Your task to perform on an android device: toggle show notifications on the lock screen Image 0: 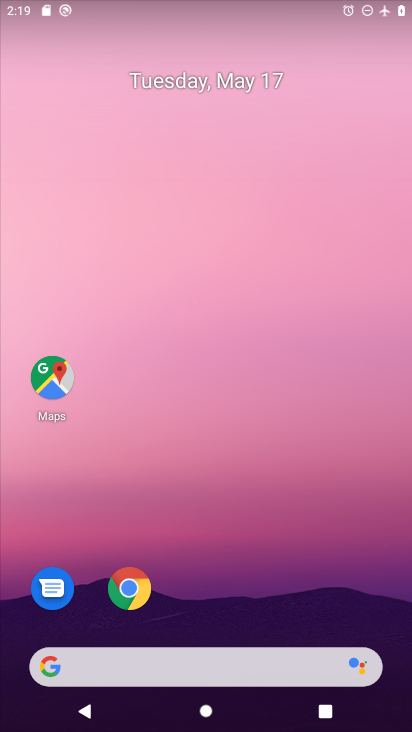
Step 0: drag from (227, 553) to (154, 13)
Your task to perform on an android device: toggle show notifications on the lock screen Image 1: 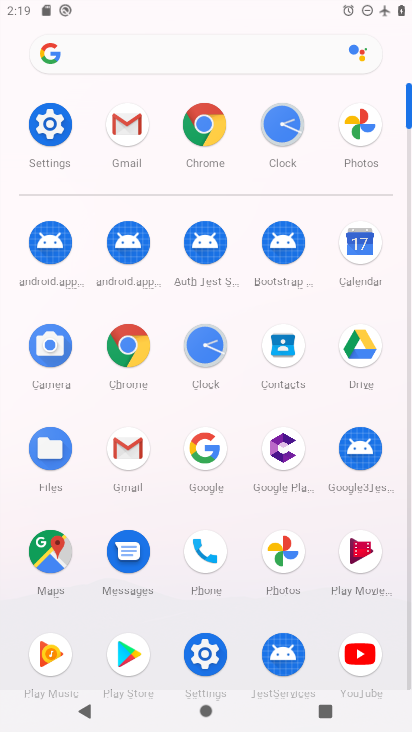
Step 1: click (59, 125)
Your task to perform on an android device: toggle show notifications on the lock screen Image 2: 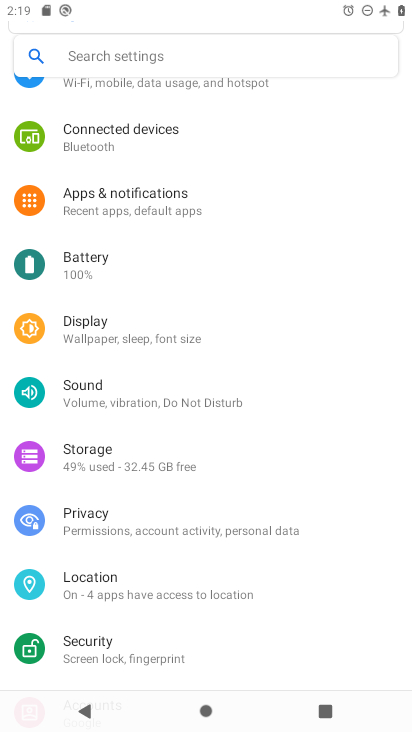
Step 2: click (69, 200)
Your task to perform on an android device: toggle show notifications on the lock screen Image 3: 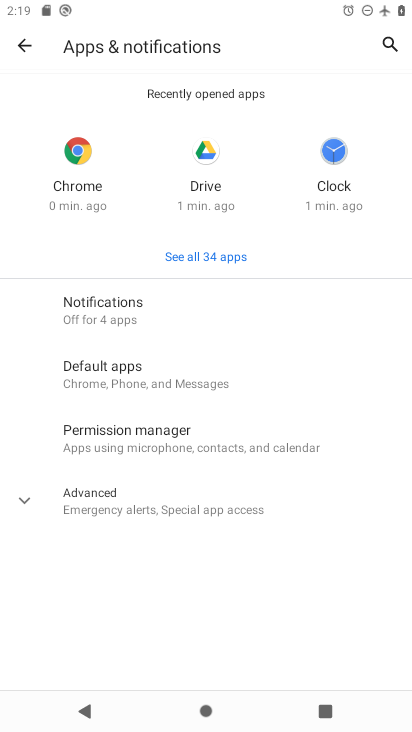
Step 3: click (132, 316)
Your task to perform on an android device: toggle show notifications on the lock screen Image 4: 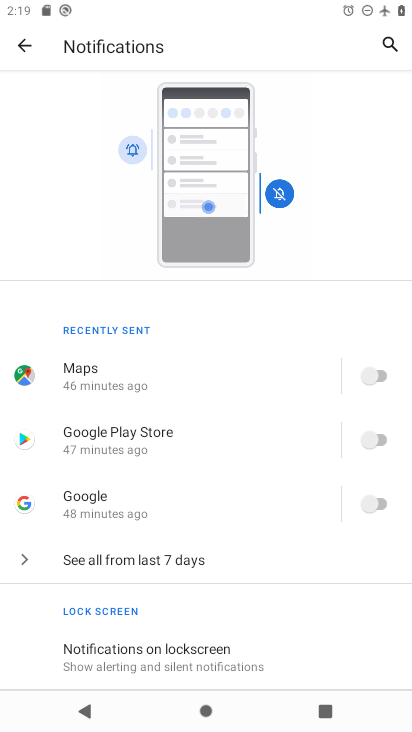
Step 4: drag from (166, 676) to (191, 527)
Your task to perform on an android device: toggle show notifications on the lock screen Image 5: 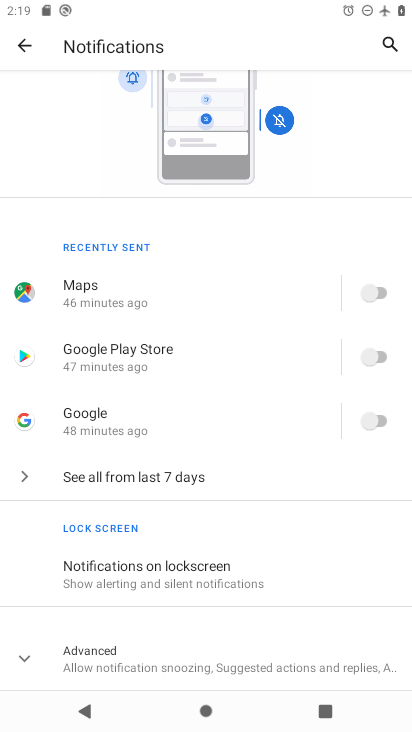
Step 5: drag from (193, 525) to (209, 294)
Your task to perform on an android device: toggle show notifications on the lock screen Image 6: 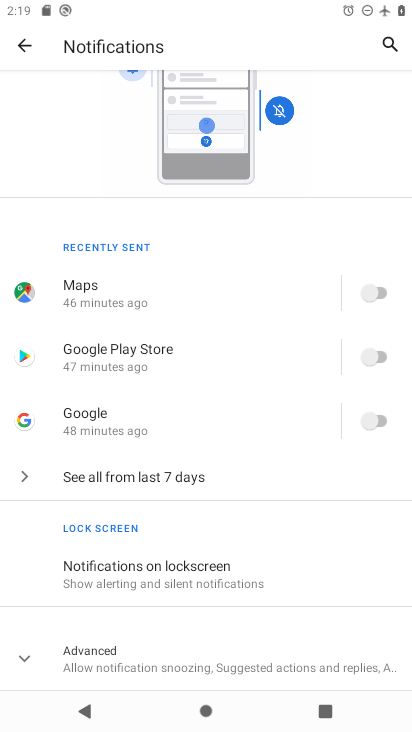
Step 6: click (166, 571)
Your task to perform on an android device: toggle show notifications on the lock screen Image 7: 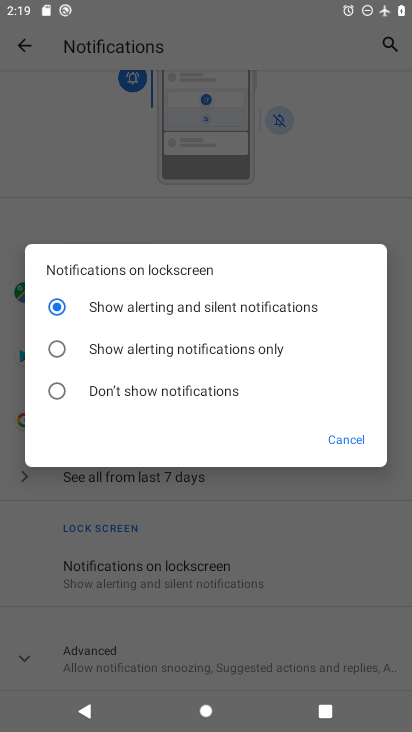
Step 7: click (113, 347)
Your task to perform on an android device: toggle show notifications on the lock screen Image 8: 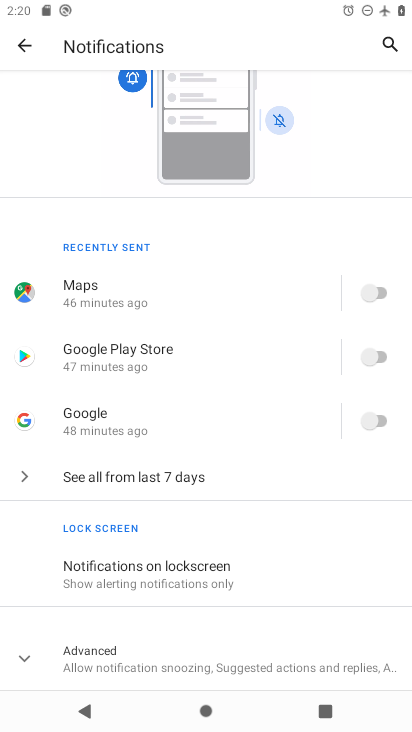
Step 8: task complete